Your task to perform on an android device: choose inbox layout in the gmail app Image 0: 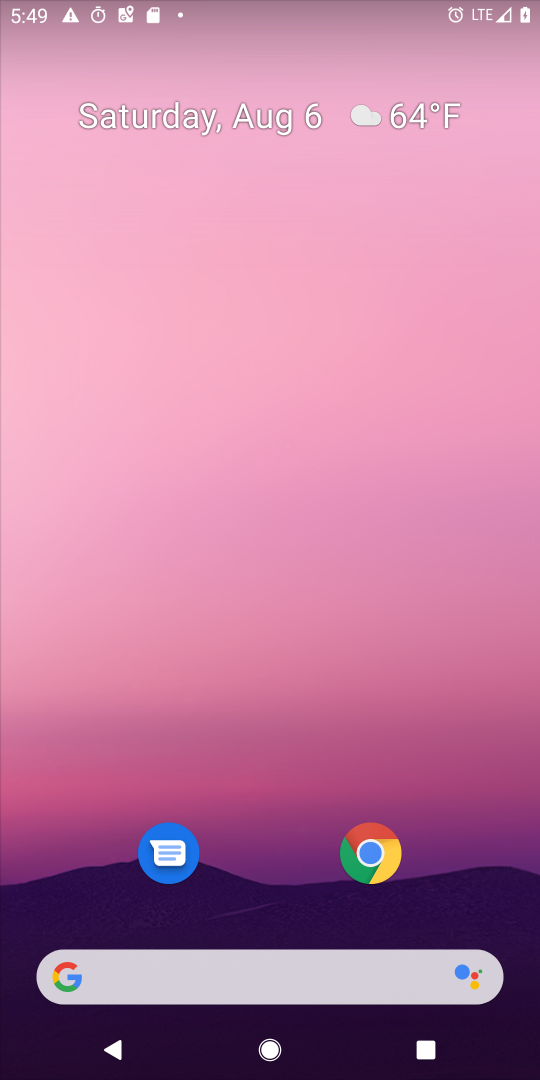
Step 0: drag from (263, 834) to (322, 418)
Your task to perform on an android device: choose inbox layout in the gmail app Image 1: 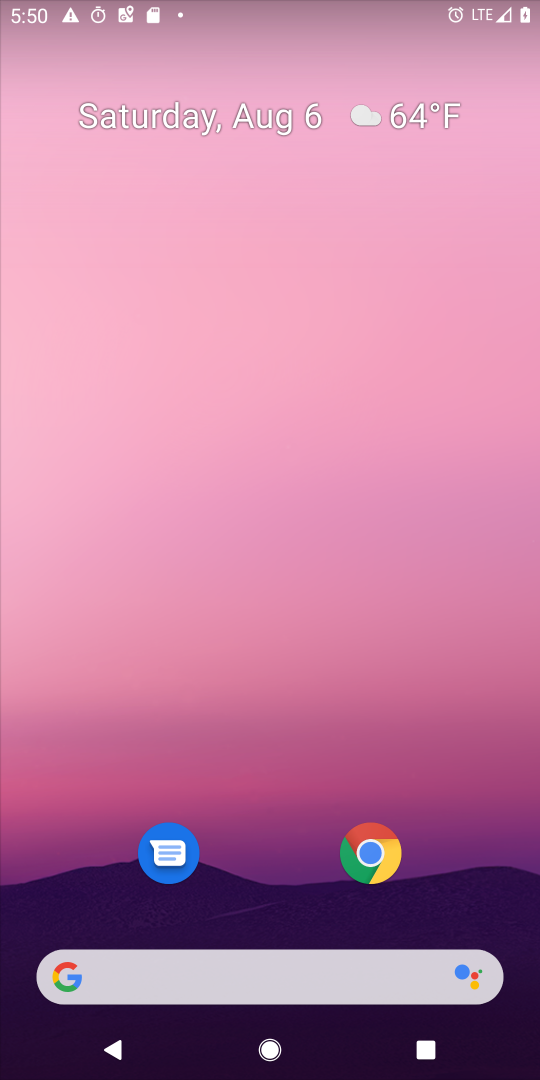
Step 1: drag from (292, 905) to (389, 71)
Your task to perform on an android device: choose inbox layout in the gmail app Image 2: 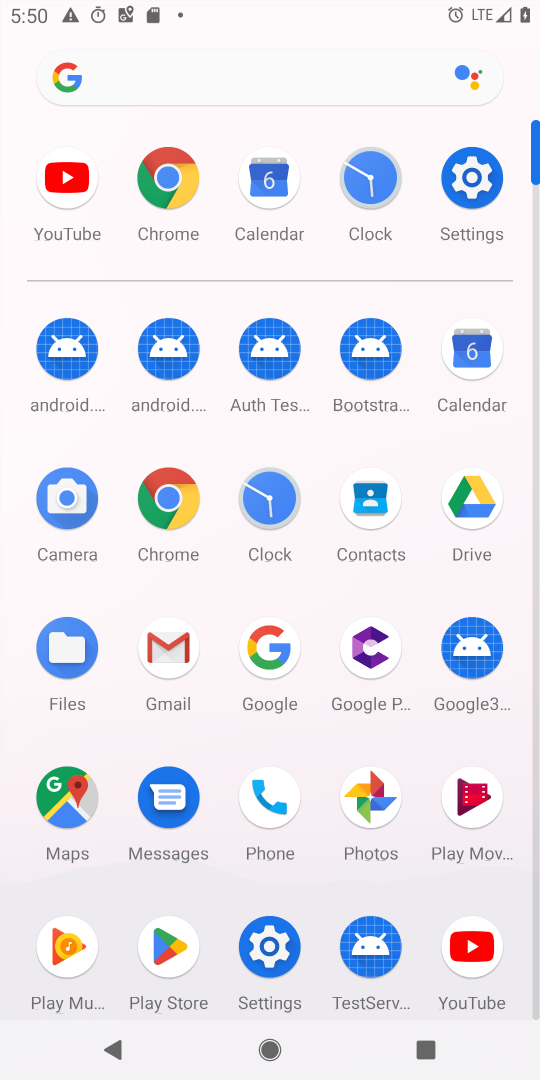
Step 2: click (169, 653)
Your task to perform on an android device: choose inbox layout in the gmail app Image 3: 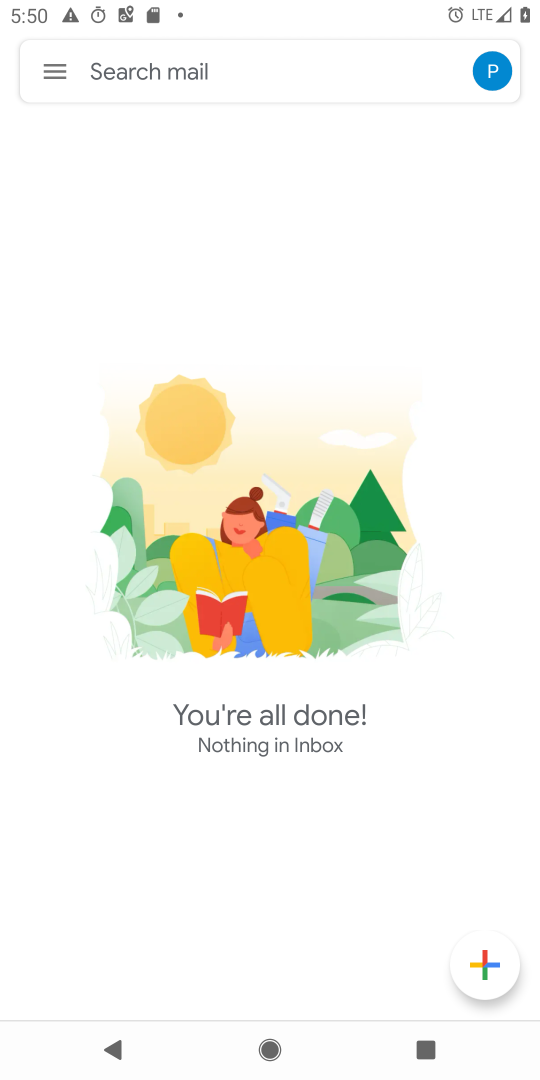
Step 3: click (47, 75)
Your task to perform on an android device: choose inbox layout in the gmail app Image 4: 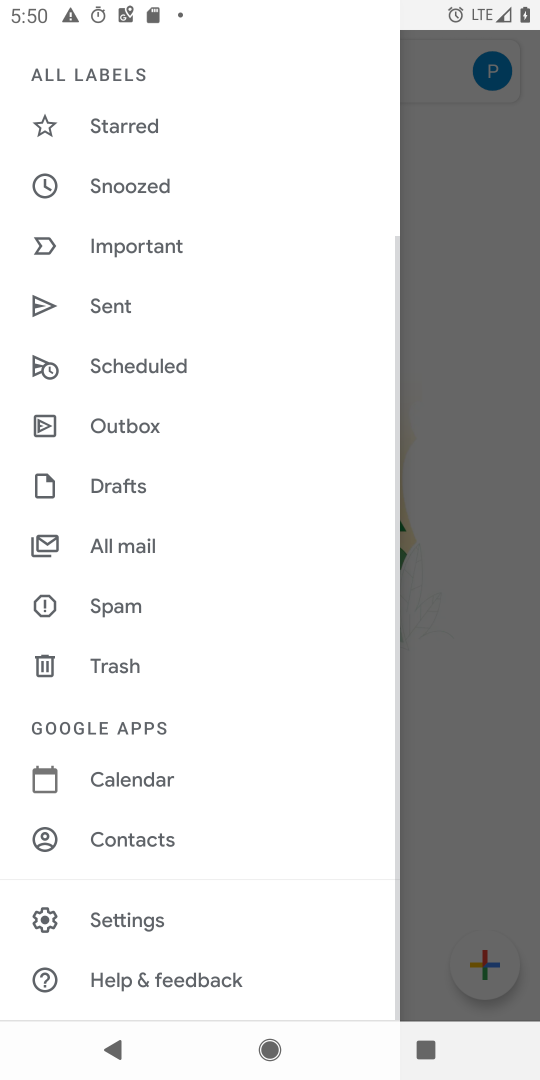
Step 4: click (114, 914)
Your task to perform on an android device: choose inbox layout in the gmail app Image 5: 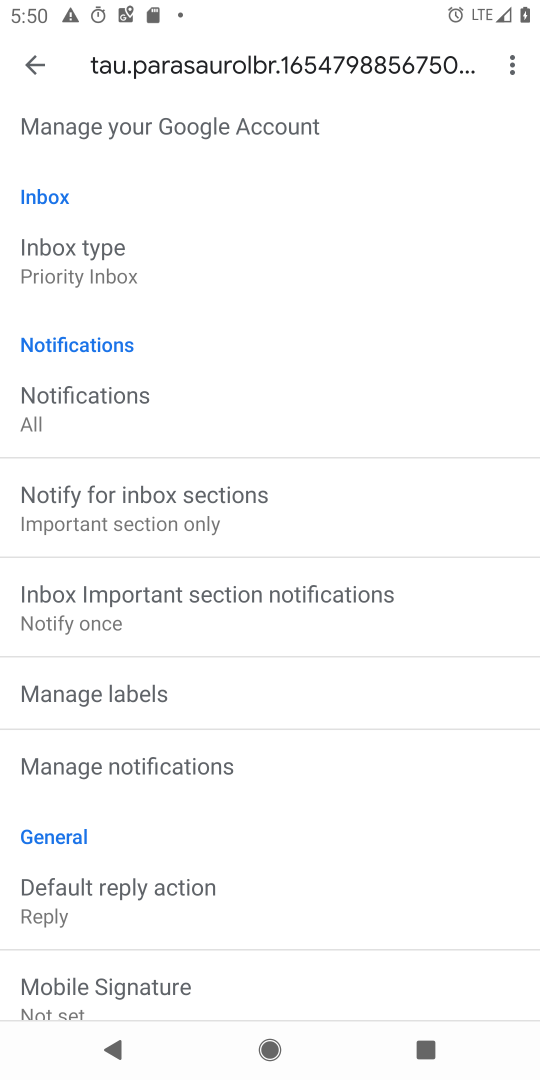
Step 5: click (119, 265)
Your task to perform on an android device: choose inbox layout in the gmail app Image 6: 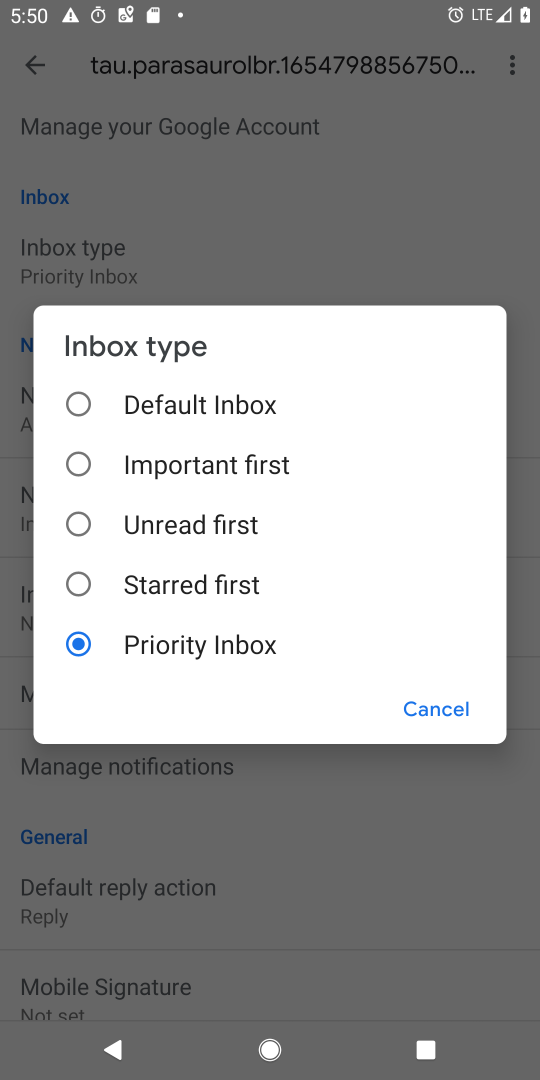
Step 6: click (148, 407)
Your task to perform on an android device: choose inbox layout in the gmail app Image 7: 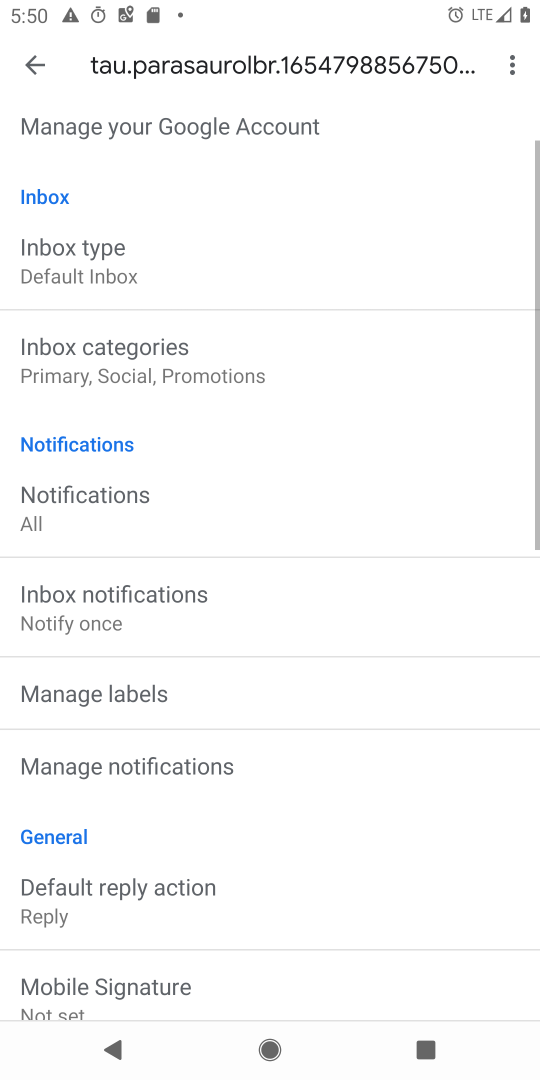
Step 7: task complete